Your task to perform on an android device: open chrome privacy settings Image 0: 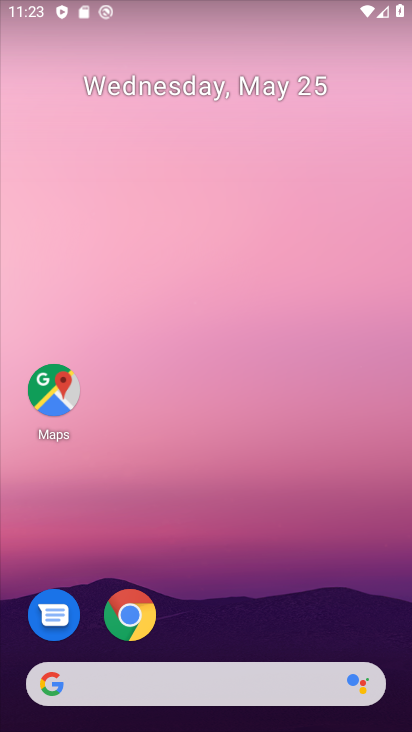
Step 0: drag from (357, 622) to (260, 21)
Your task to perform on an android device: open chrome privacy settings Image 1: 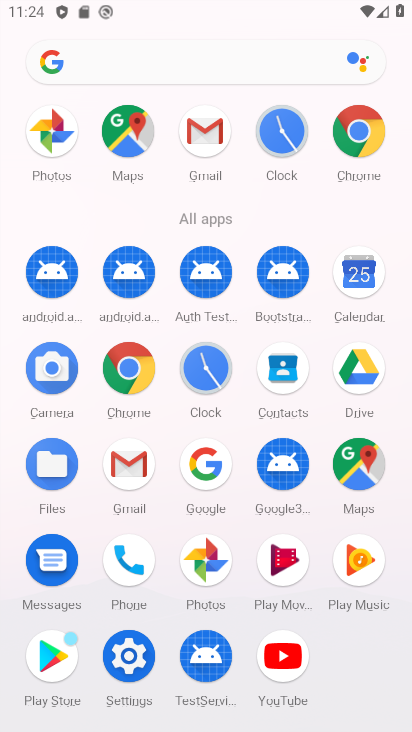
Step 1: click (356, 143)
Your task to perform on an android device: open chrome privacy settings Image 2: 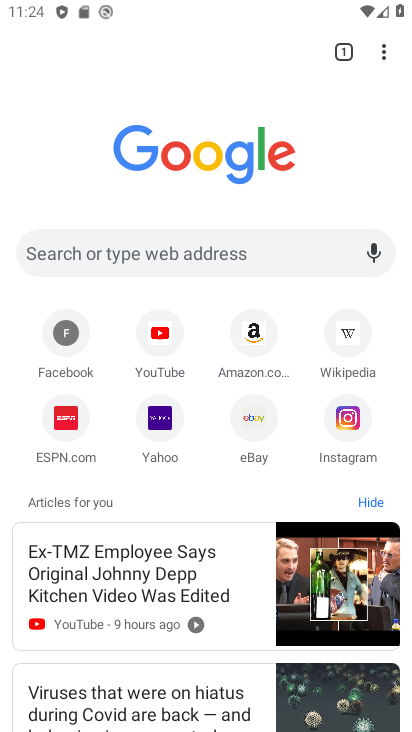
Step 2: click (391, 52)
Your task to perform on an android device: open chrome privacy settings Image 3: 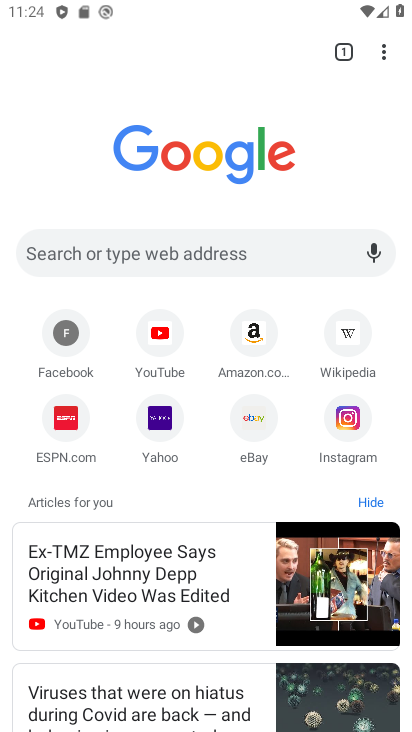
Step 3: click (387, 51)
Your task to perform on an android device: open chrome privacy settings Image 4: 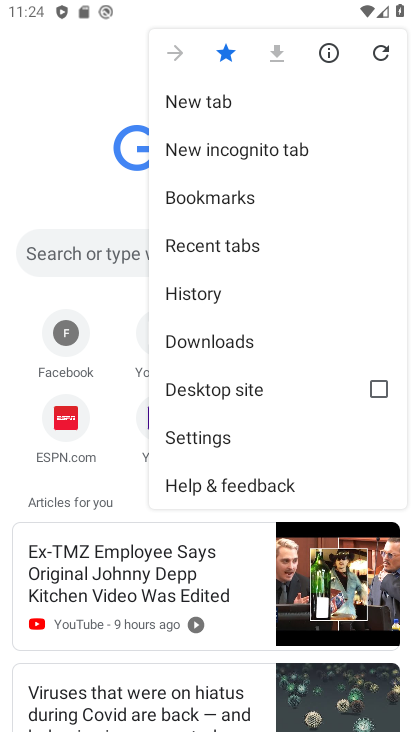
Step 4: click (205, 432)
Your task to perform on an android device: open chrome privacy settings Image 5: 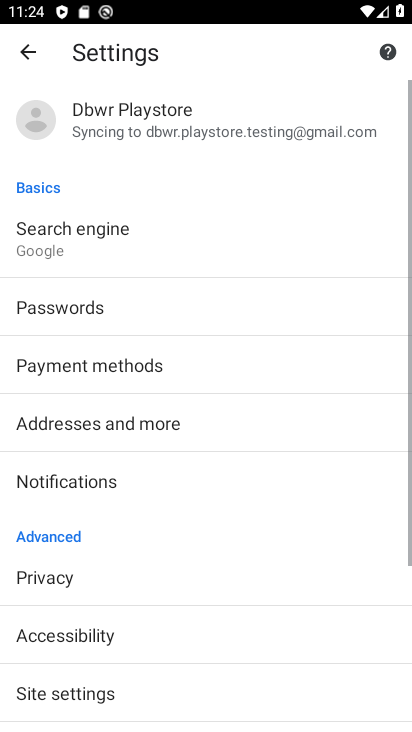
Step 5: click (66, 589)
Your task to perform on an android device: open chrome privacy settings Image 6: 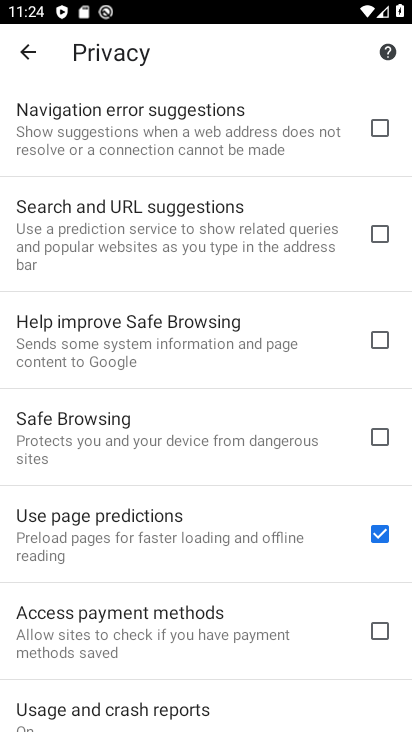
Step 6: task complete